Your task to perform on an android device: Open settings on Google Maps Image 0: 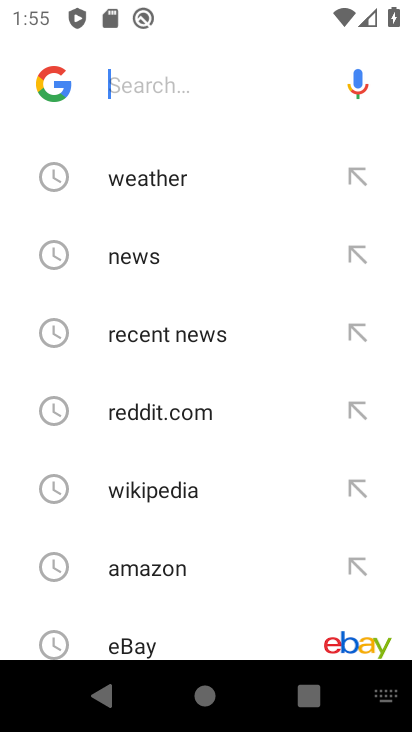
Step 0: press back button
Your task to perform on an android device: Open settings on Google Maps Image 1: 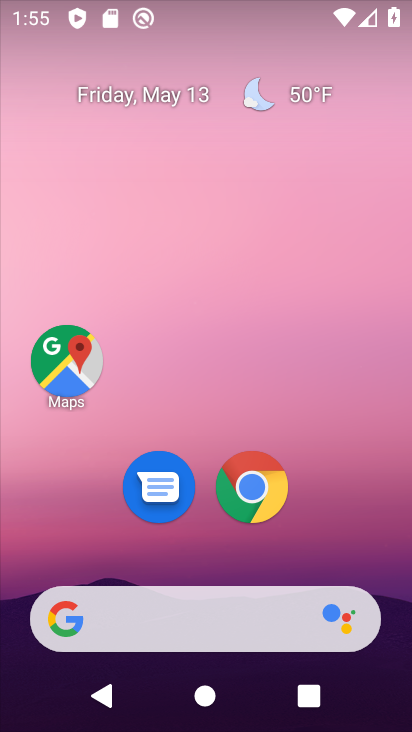
Step 1: click (24, 367)
Your task to perform on an android device: Open settings on Google Maps Image 2: 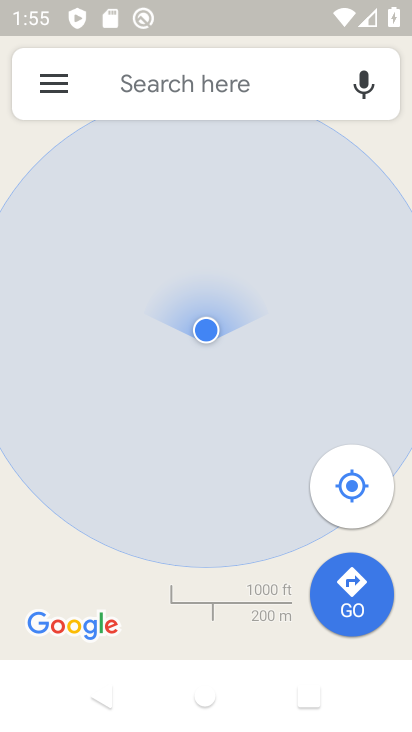
Step 2: click (62, 93)
Your task to perform on an android device: Open settings on Google Maps Image 3: 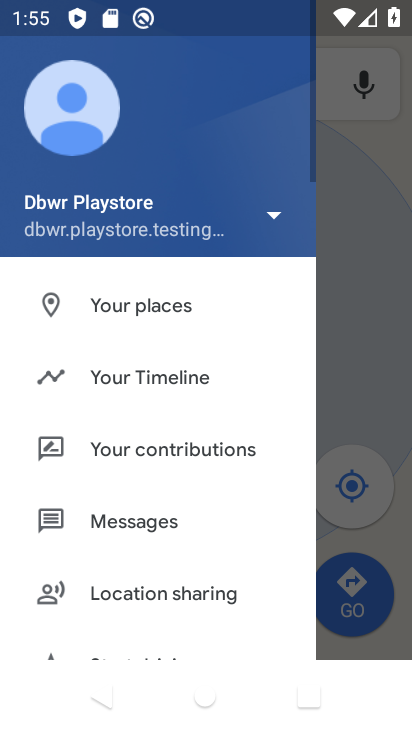
Step 3: drag from (138, 572) to (240, 245)
Your task to perform on an android device: Open settings on Google Maps Image 4: 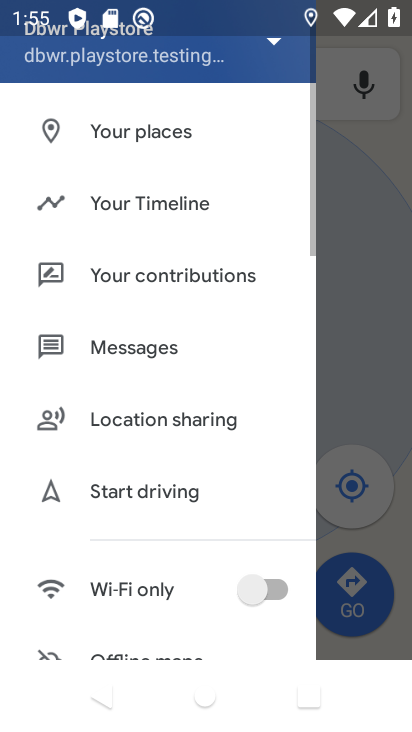
Step 4: drag from (98, 657) to (229, 279)
Your task to perform on an android device: Open settings on Google Maps Image 5: 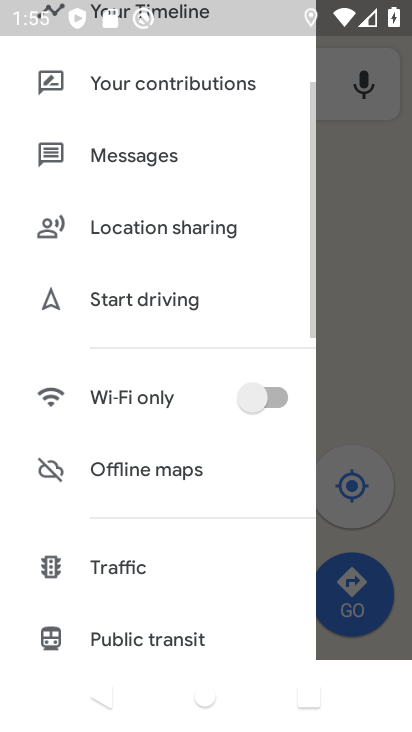
Step 5: drag from (174, 520) to (294, 184)
Your task to perform on an android device: Open settings on Google Maps Image 6: 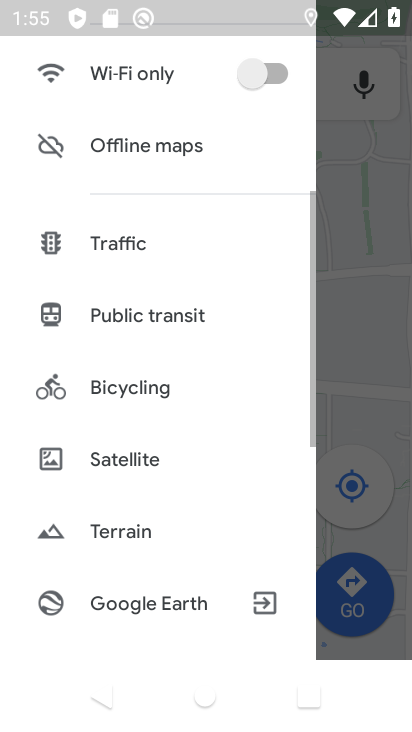
Step 6: drag from (158, 601) to (236, 251)
Your task to perform on an android device: Open settings on Google Maps Image 7: 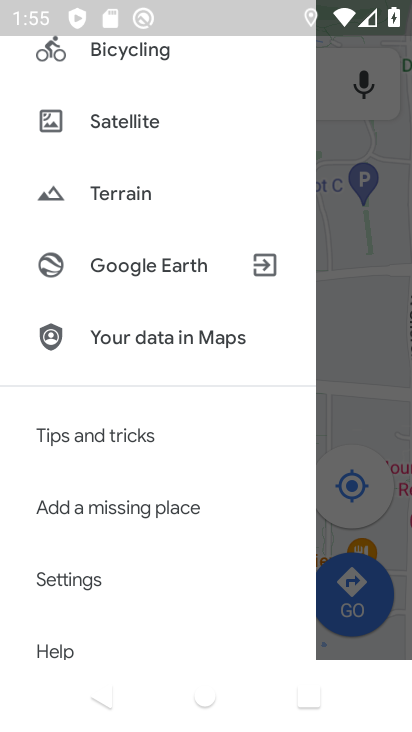
Step 7: click (111, 584)
Your task to perform on an android device: Open settings on Google Maps Image 8: 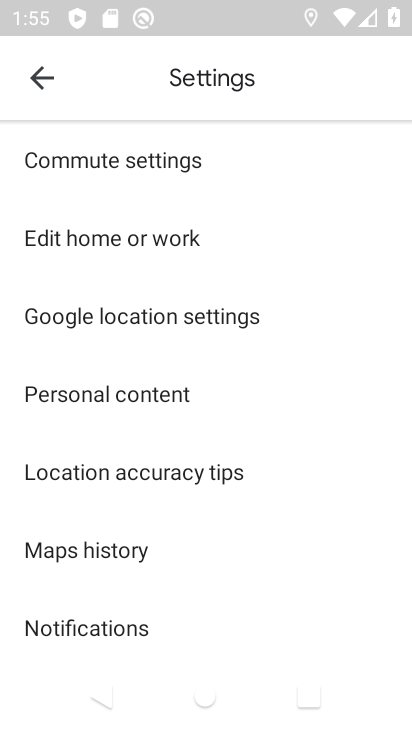
Step 8: task complete